Your task to perform on an android device: turn off priority inbox in the gmail app Image 0: 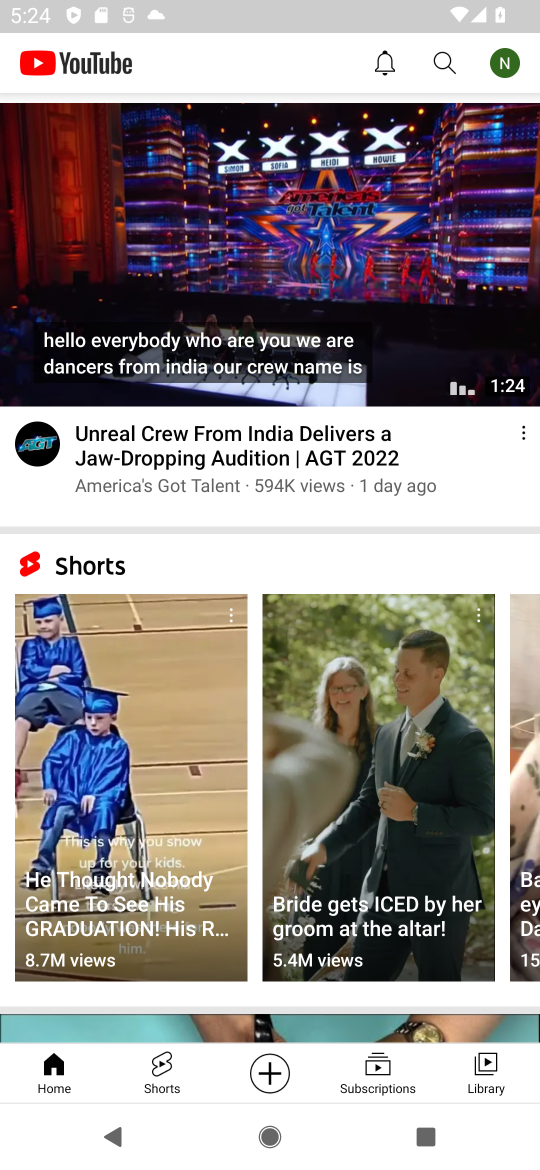
Step 0: press home button
Your task to perform on an android device: turn off priority inbox in the gmail app Image 1: 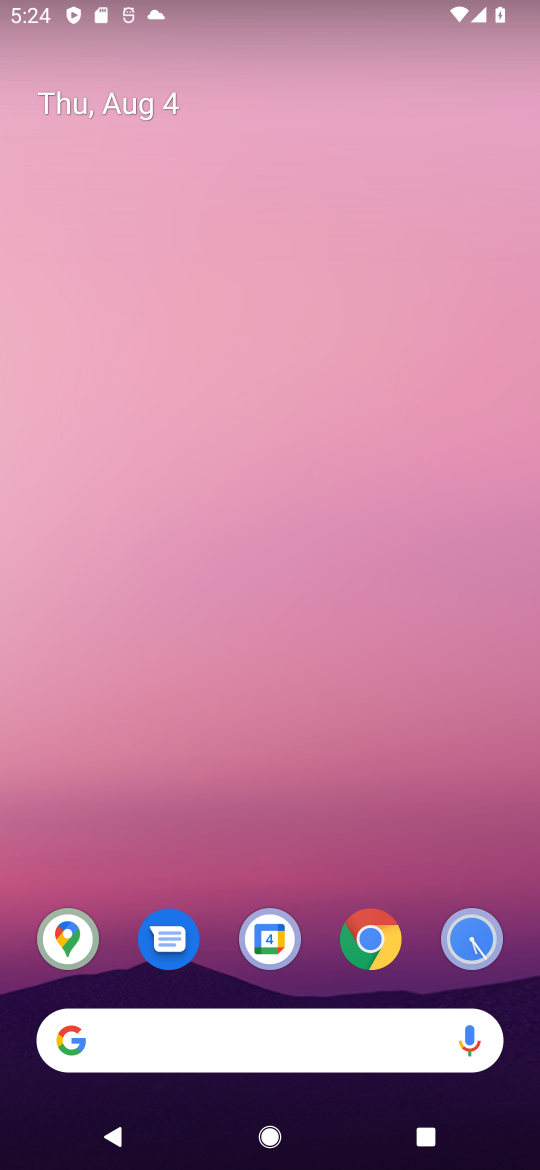
Step 1: drag from (250, 1009) to (288, 440)
Your task to perform on an android device: turn off priority inbox in the gmail app Image 2: 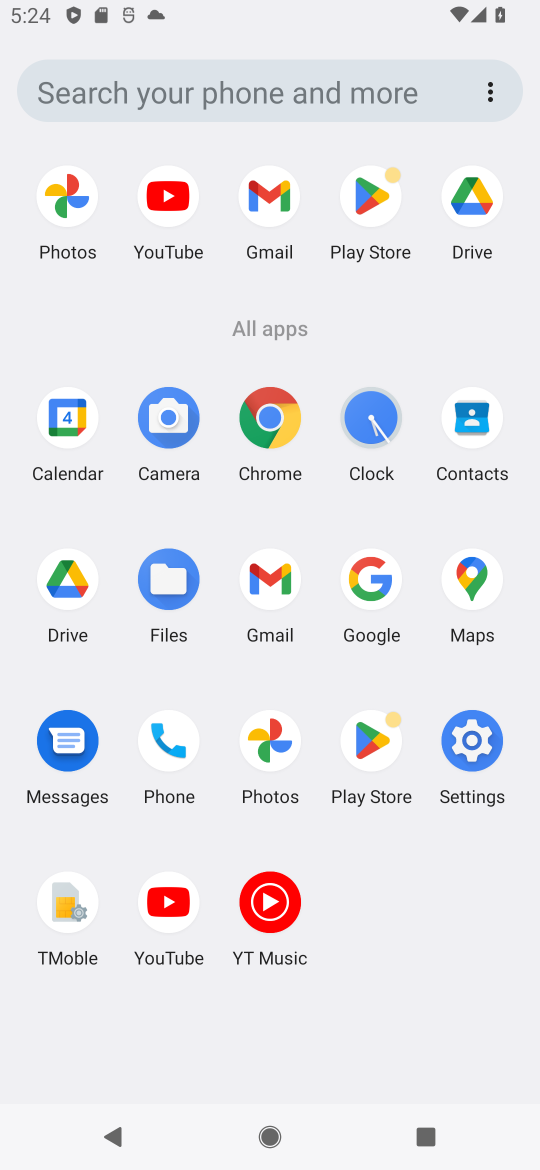
Step 2: click (273, 575)
Your task to perform on an android device: turn off priority inbox in the gmail app Image 3: 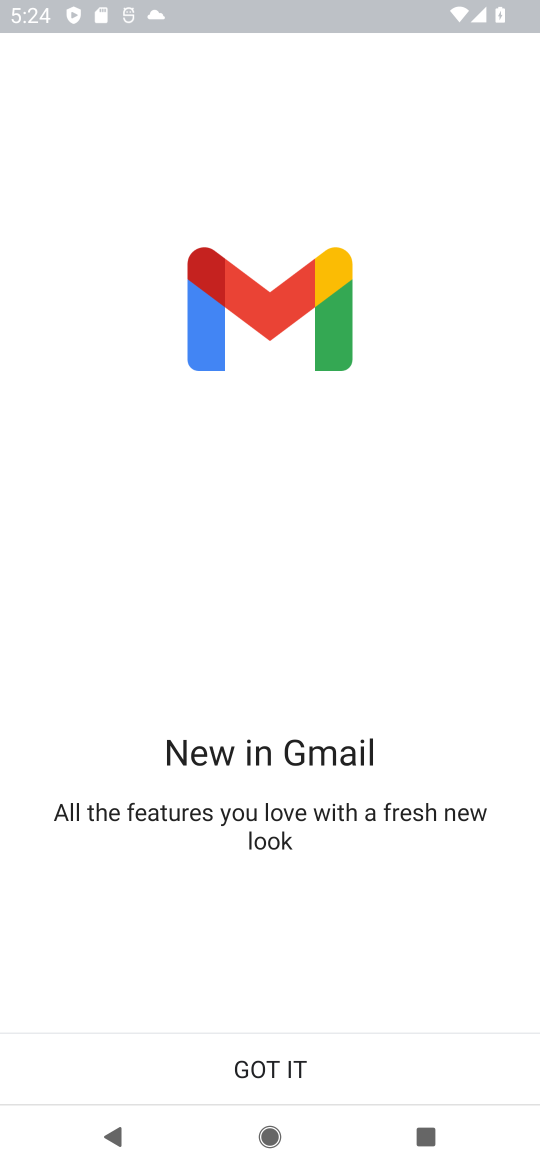
Step 3: click (260, 1072)
Your task to perform on an android device: turn off priority inbox in the gmail app Image 4: 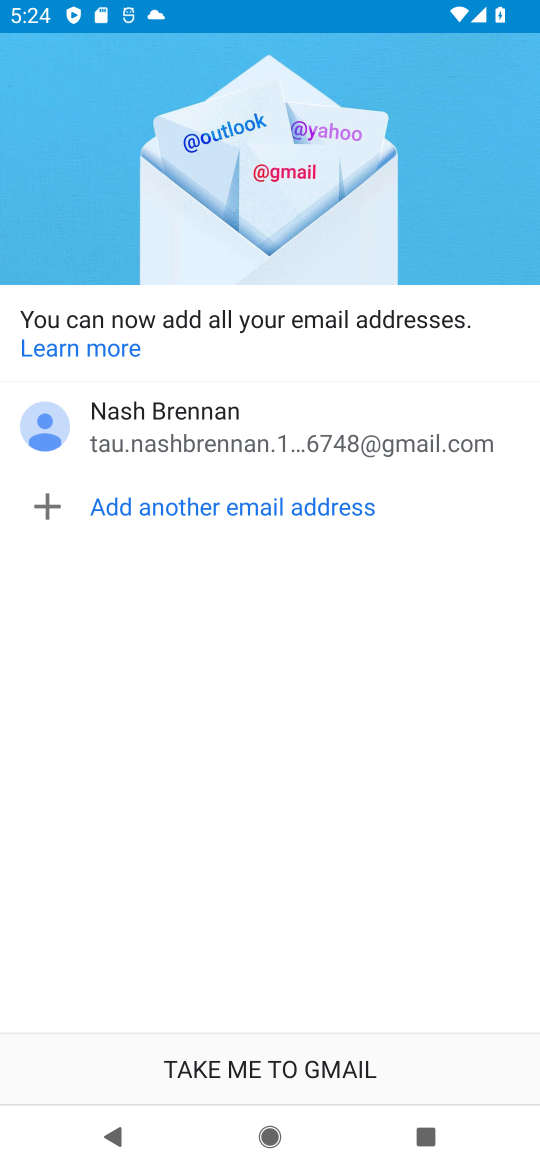
Step 4: click (260, 1072)
Your task to perform on an android device: turn off priority inbox in the gmail app Image 5: 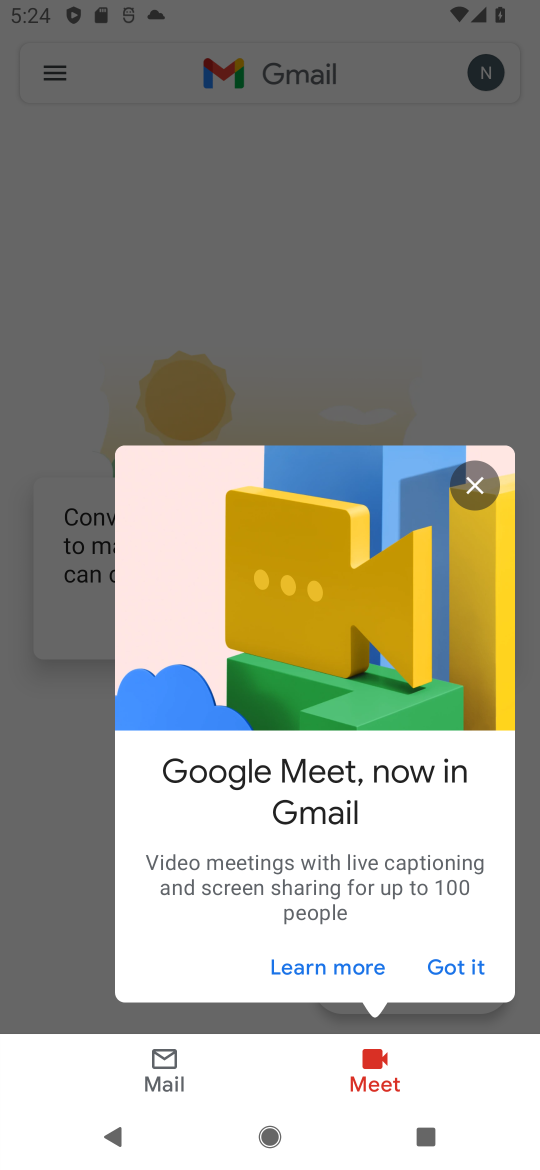
Step 5: click (446, 966)
Your task to perform on an android device: turn off priority inbox in the gmail app Image 6: 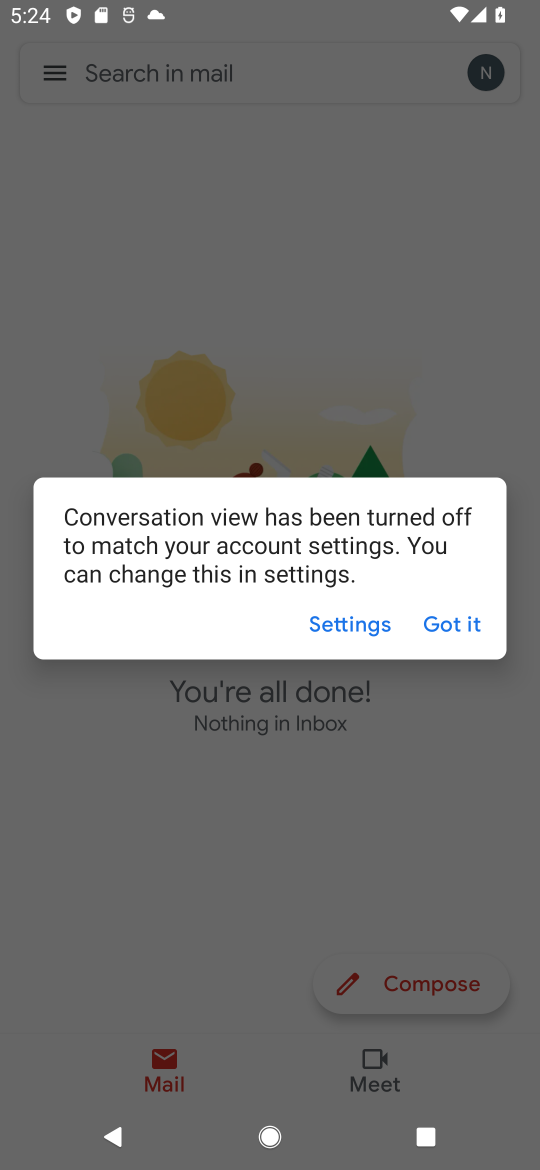
Step 6: click (453, 630)
Your task to perform on an android device: turn off priority inbox in the gmail app Image 7: 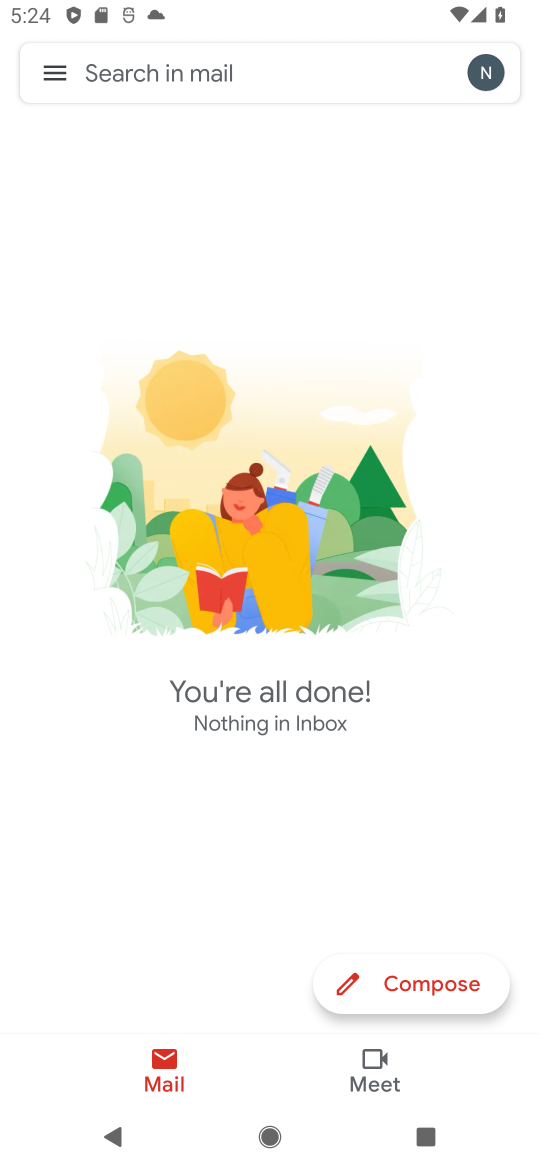
Step 7: click (58, 74)
Your task to perform on an android device: turn off priority inbox in the gmail app Image 8: 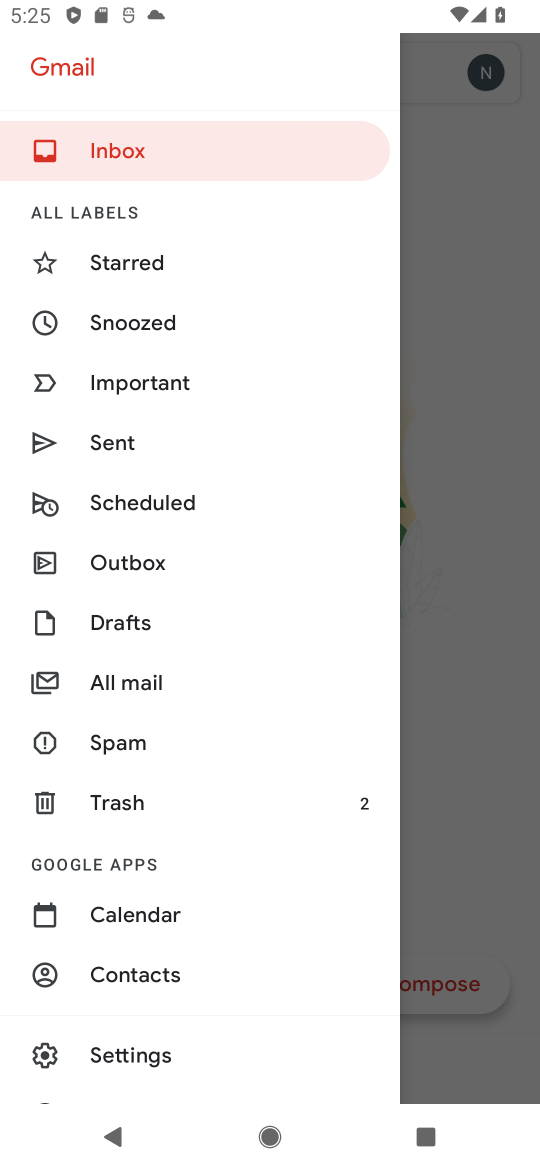
Step 8: click (110, 1056)
Your task to perform on an android device: turn off priority inbox in the gmail app Image 9: 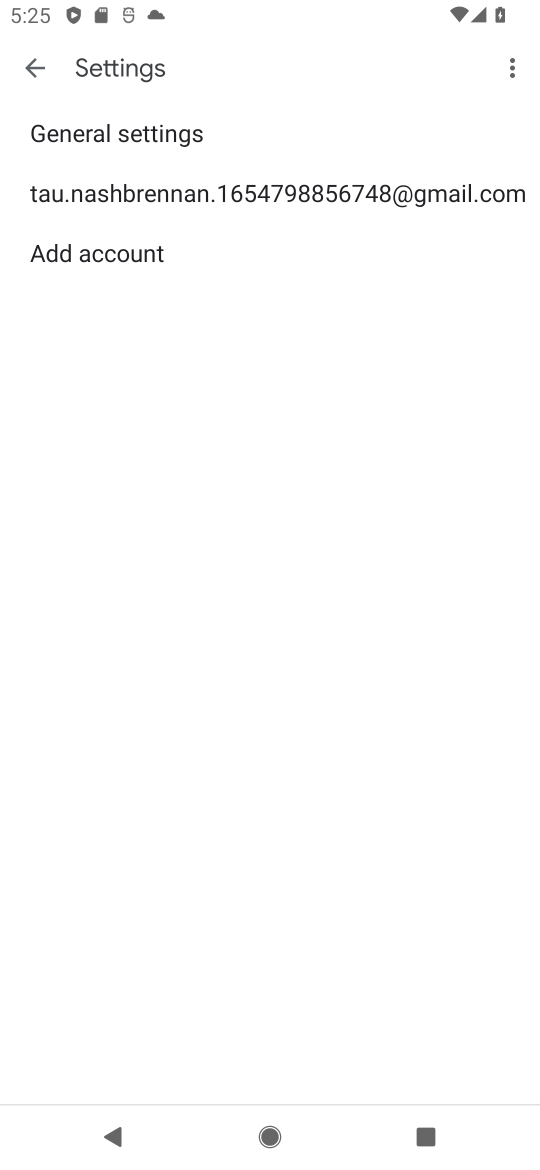
Step 9: click (153, 205)
Your task to perform on an android device: turn off priority inbox in the gmail app Image 10: 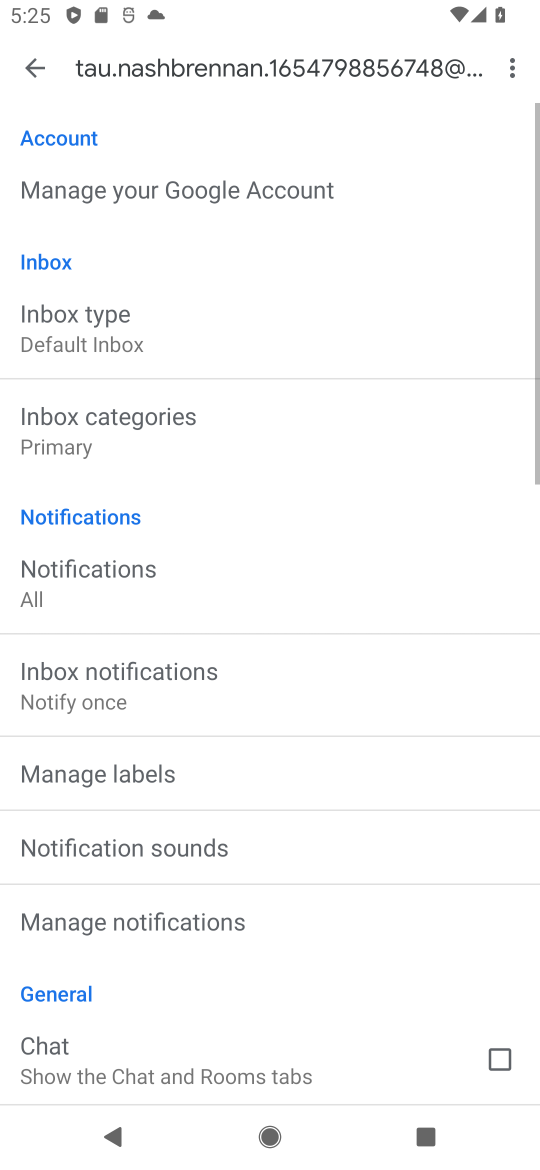
Step 10: click (119, 329)
Your task to perform on an android device: turn off priority inbox in the gmail app Image 11: 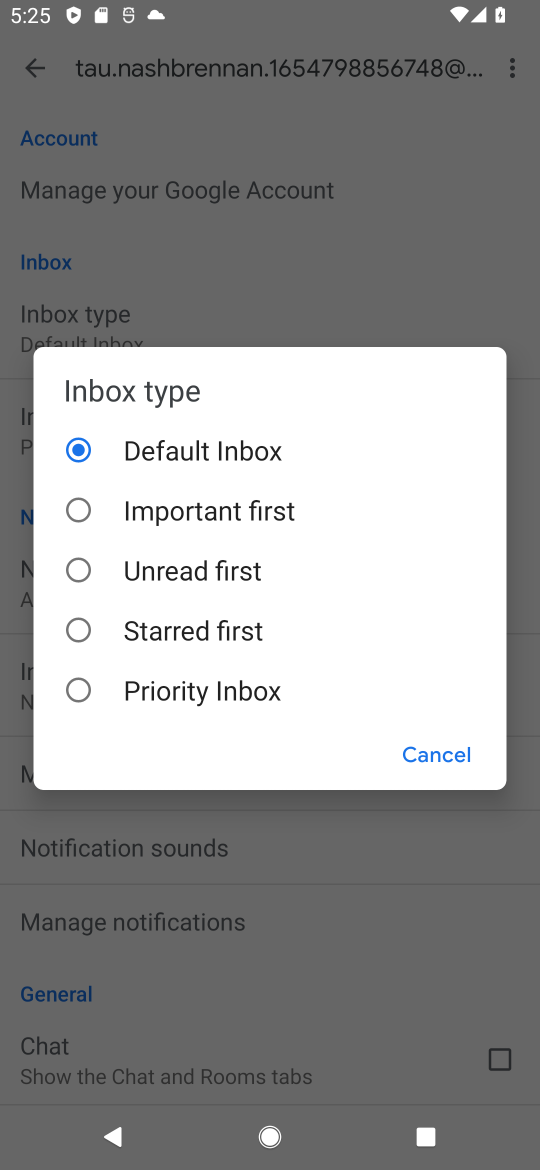
Step 11: click (148, 691)
Your task to perform on an android device: turn off priority inbox in the gmail app Image 12: 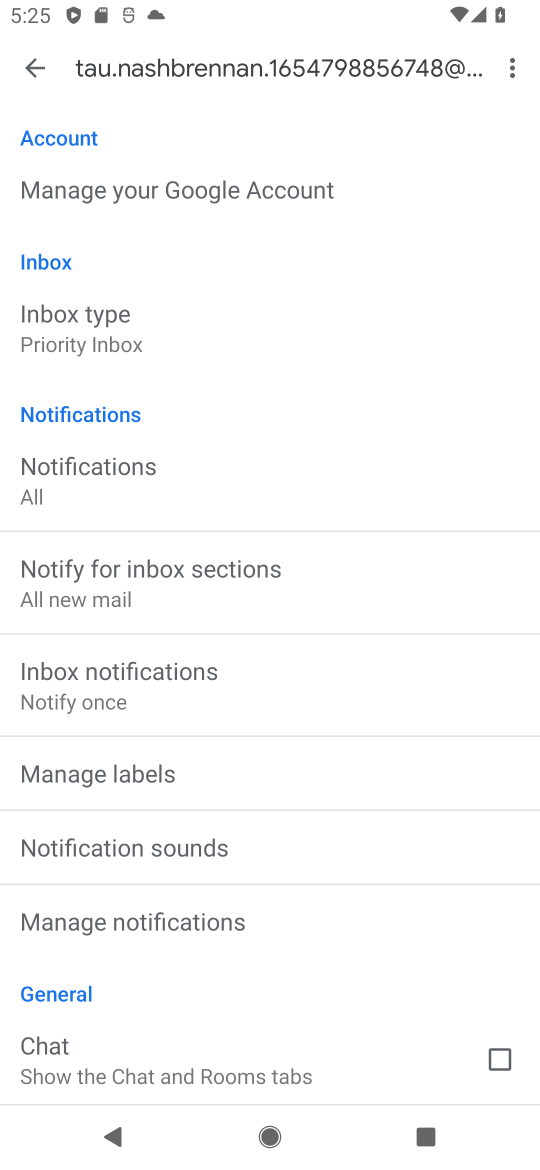
Step 12: task complete